Your task to perform on an android device: allow cookies in the chrome app Image 0: 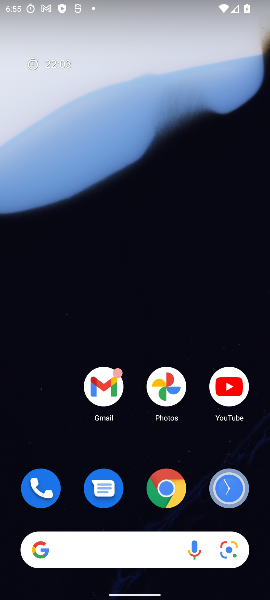
Step 0: drag from (132, 487) to (108, 0)
Your task to perform on an android device: allow cookies in the chrome app Image 1: 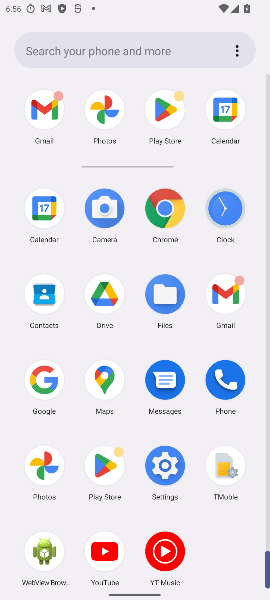
Step 1: click (157, 228)
Your task to perform on an android device: allow cookies in the chrome app Image 2: 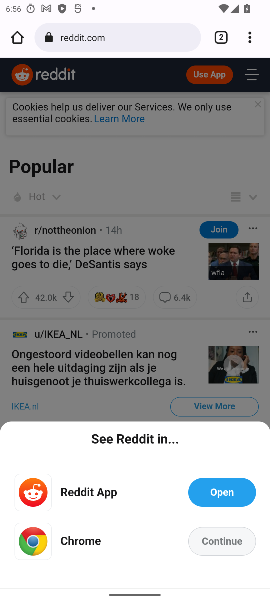
Step 2: drag from (252, 36) to (151, 520)
Your task to perform on an android device: allow cookies in the chrome app Image 3: 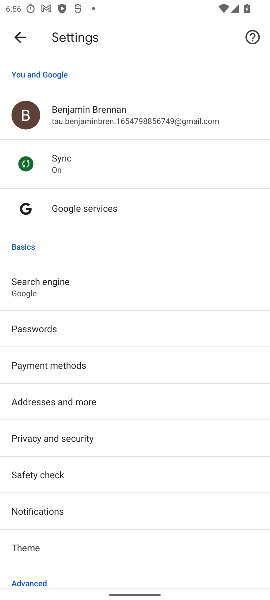
Step 3: drag from (141, 502) to (172, 123)
Your task to perform on an android device: allow cookies in the chrome app Image 4: 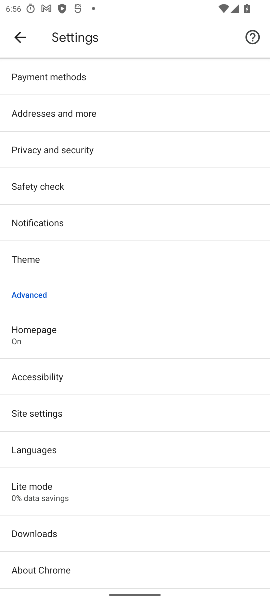
Step 4: click (89, 419)
Your task to perform on an android device: allow cookies in the chrome app Image 5: 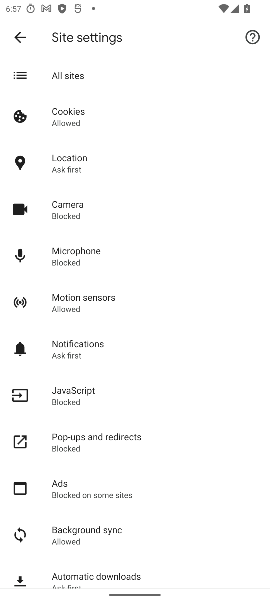
Step 5: click (76, 119)
Your task to perform on an android device: allow cookies in the chrome app Image 6: 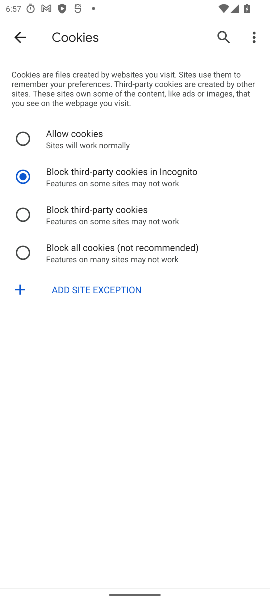
Step 6: click (98, 146)
Your task to perform on an android device: allow cookies in the chrome app Image 7: 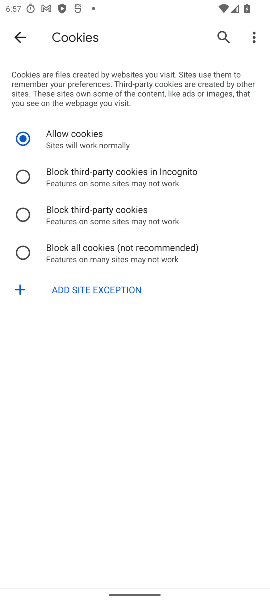
Step 7: task complete